Your task to perform on an android device: create a new album in the google photos Image 0: 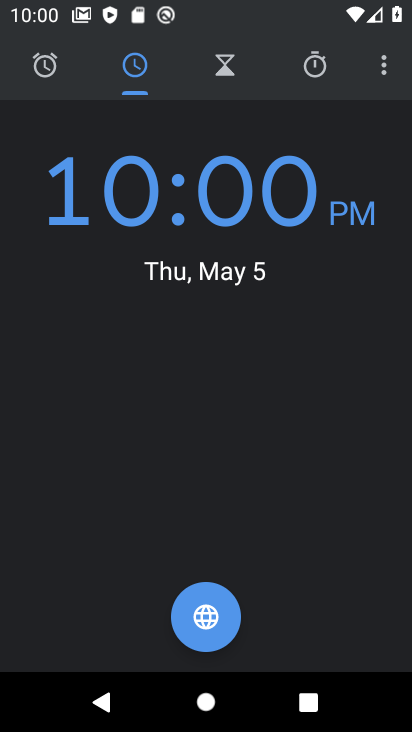
Step 0: press home button
Your task to perform on an android device: create a new album in the google photos Image 1: 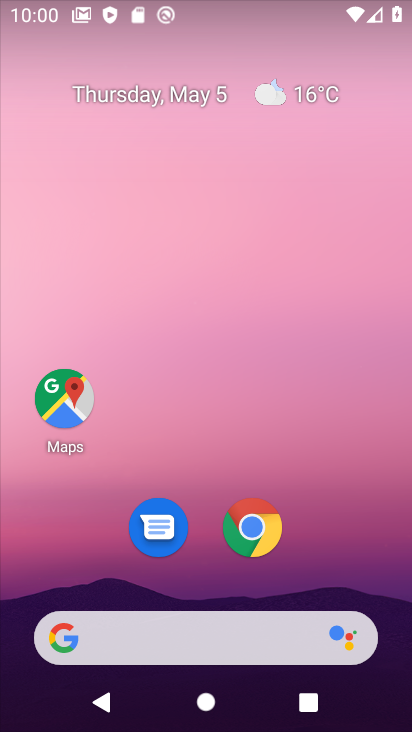
Step 1: drag from (136, 341) to (212, 96)
Your task to perform on an android device: create a new album in the google photos Image 2: 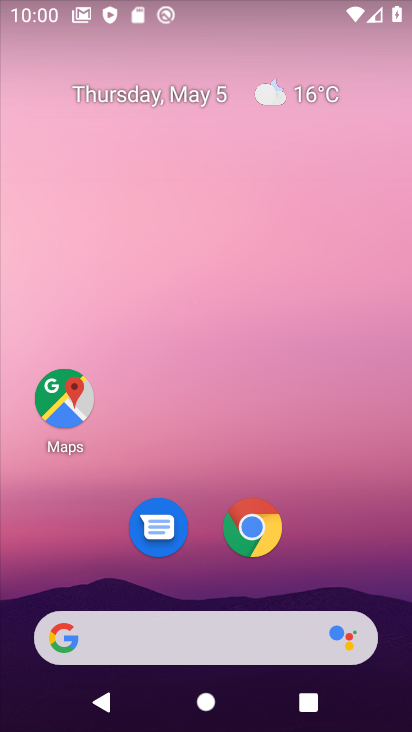
Step 2: drag from (6, 678) to (211, 282)
Your task to perform on an android device: create a new album in the google photos Image 3: 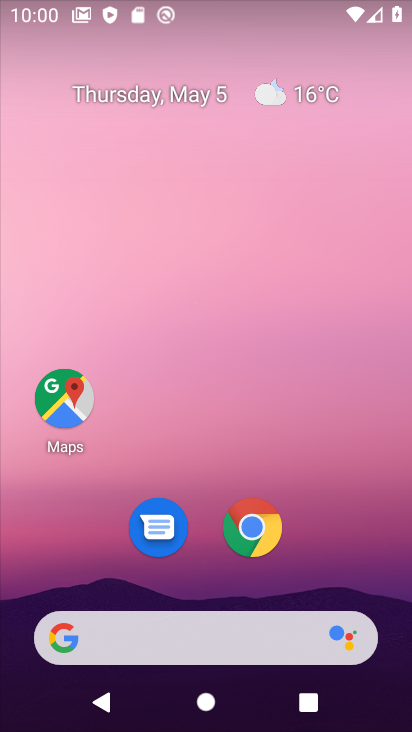
Step 3: drag from (33, 560) to (218, 126)
Your task to perform on an android device: create a new album in the google photos Image 4: 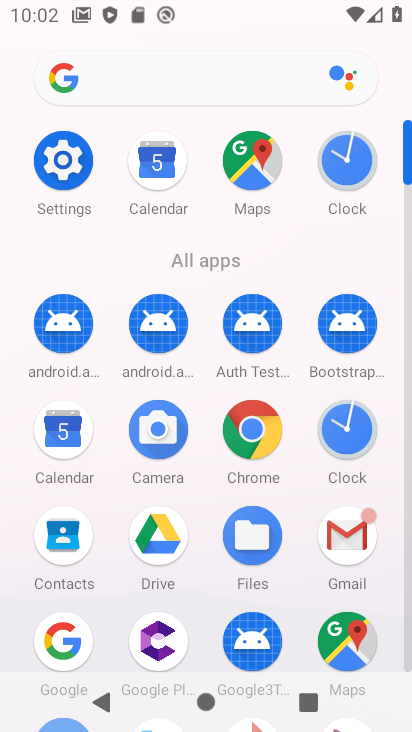
Step 4: drag from (68, 377) to (164, 178)
Your task to perform on an android device: create a new album in the google photos Image 5: 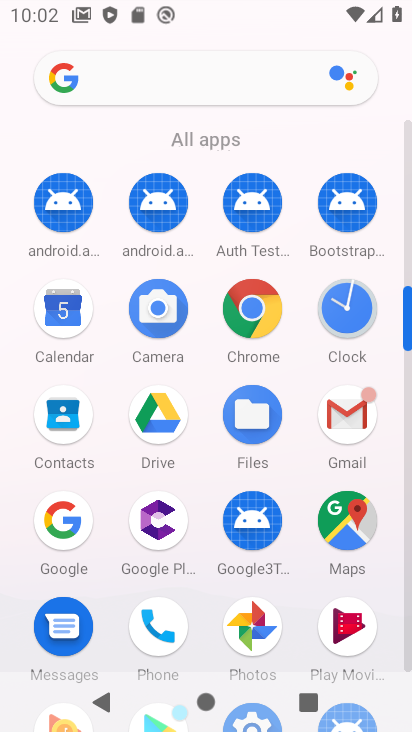
Step 5: click (266, 636)
Your task to perform on an android device: create a new album in the google photos Image 6: 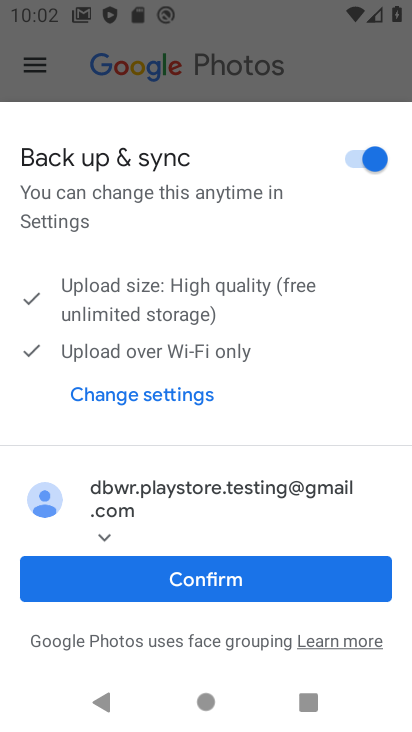
Step 6: click (155, 583)
Your task to perform on an android device: create a new album in the google photos Image 7: 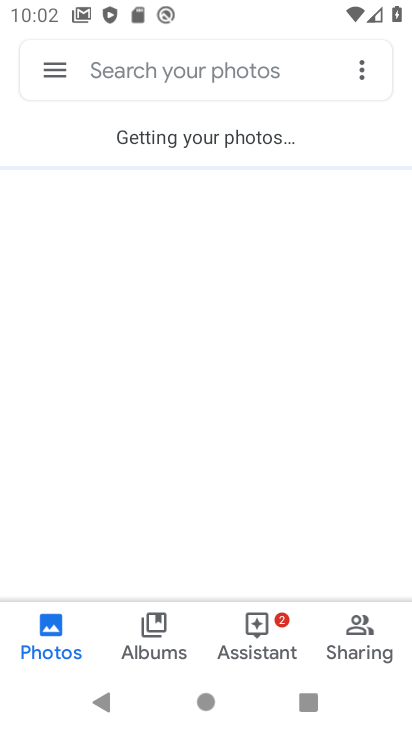
Step 7: click (143, 625)
Your task to perform on an android device: create a new album in the google photos Image 8: 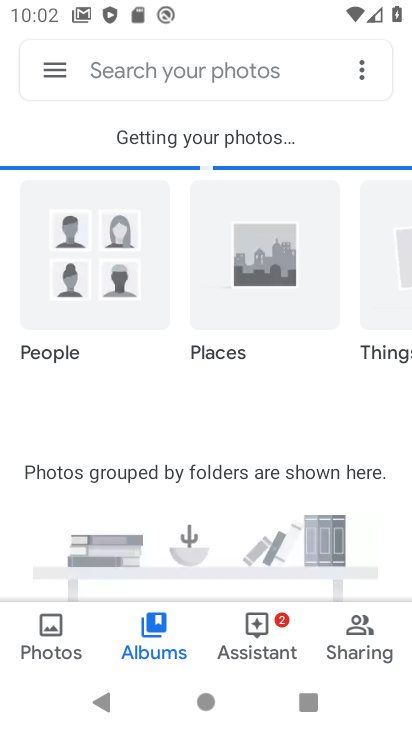
Step 8: click (346, 82)
Your task to perform on an android device: create a new album in the google photos Image 9: 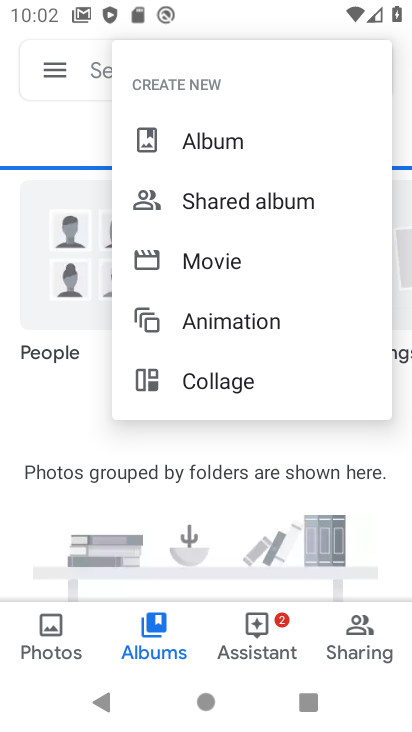
Step 9: click (219, 129)
Your task to perform on an android device: create a new album in the google photos Image 10: 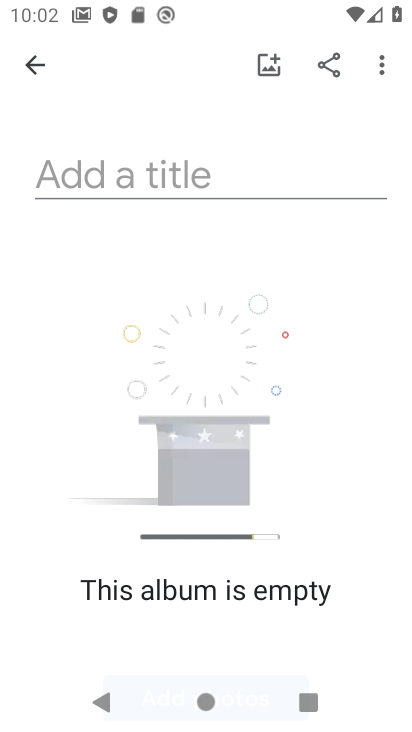
Step 10: click (213, 164)
Your task to perform on an android device: create a new album in the google photos Image 11: 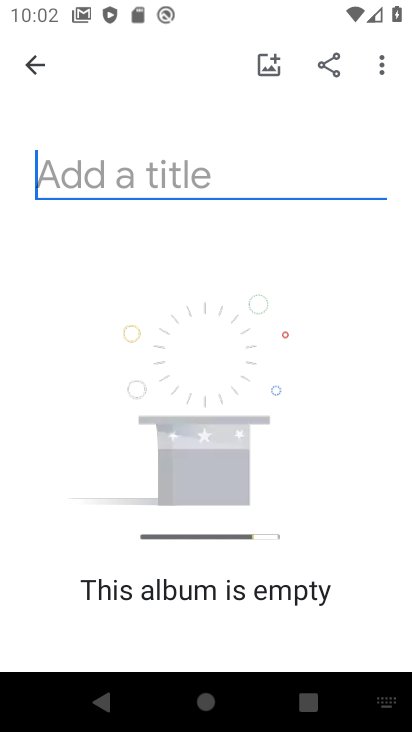
Step 11: type "fdfd"
Your task to perform on an android device: create a new album in the google photos Image 12: 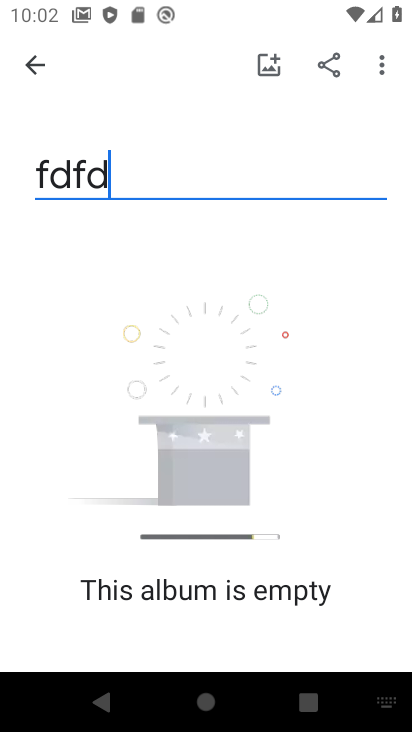
Step 12: type ""
Your task to perform on an android device: create a new album in the google photos Image 13: 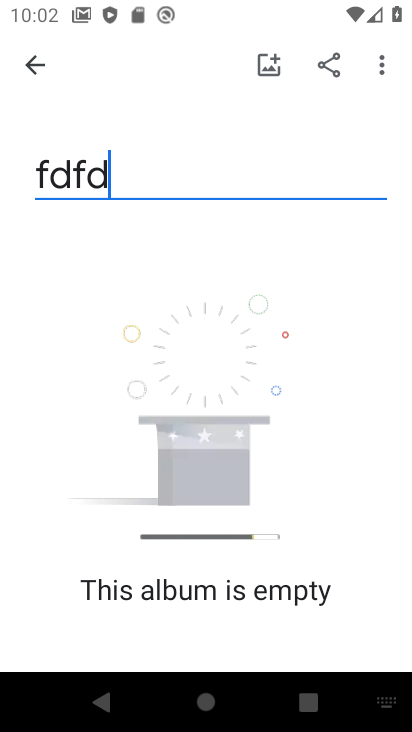
Step 13: click (276, 60)
Your task to perform on an android device: create a new album in the google photos Image 14: 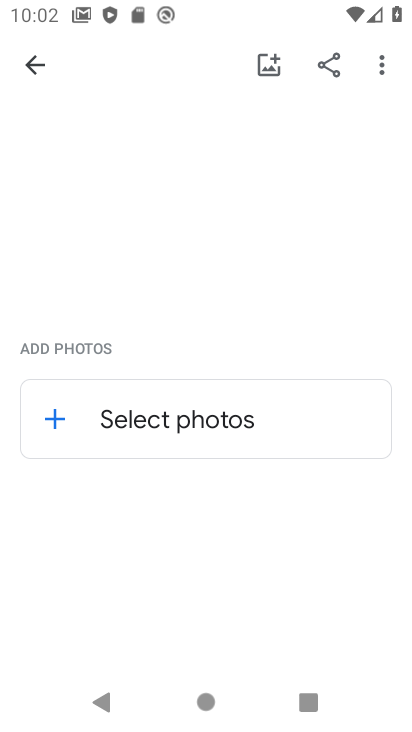
Step 14: click (86, 438)
Your task to perform on an android device: create a new album in the google photos Image 15: 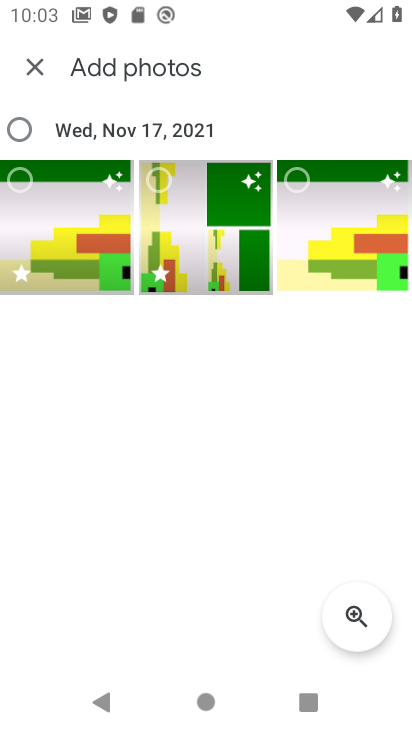
Step 15: click (23, 191)
Your task to perform on an android device: create a new album in the google photos Image 16: 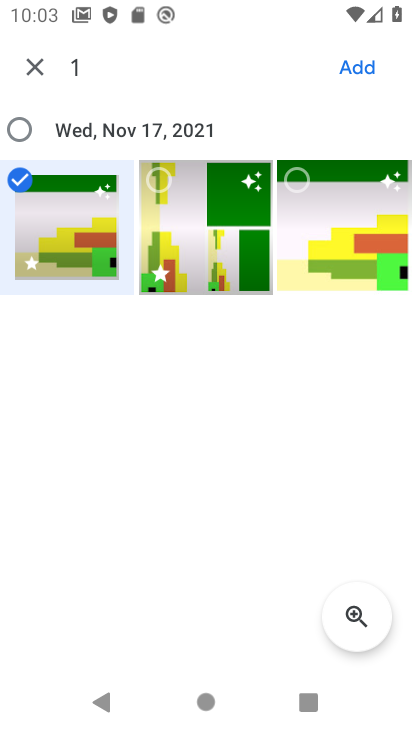
Step 16: click (367, 67)
Your task to perform on an android device: create a new album in the google photos Image 17: 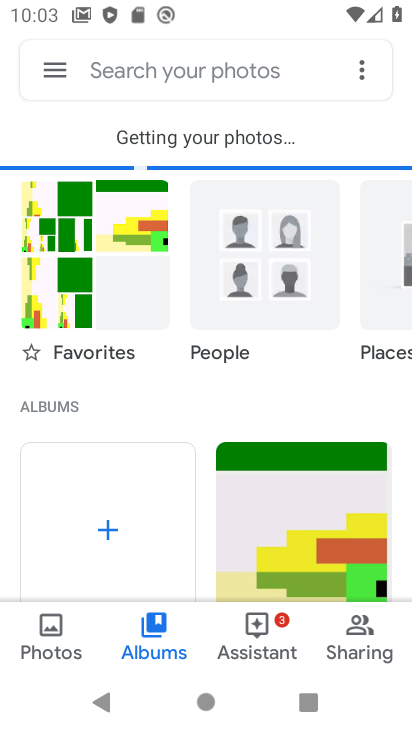
Step 17: task complete